Your task to perform on an android device: Open Chrome and go to settings Image 0: 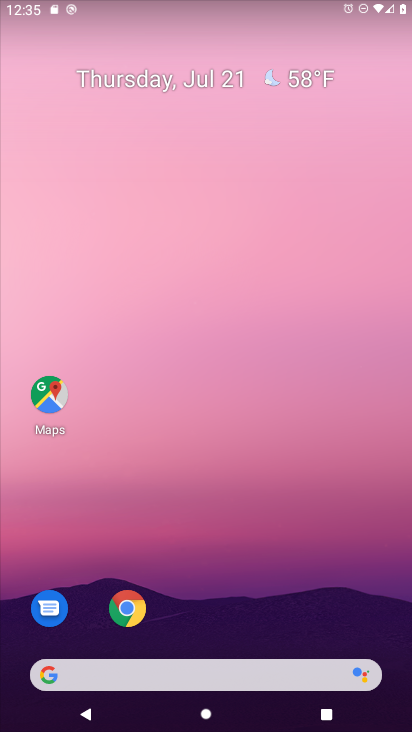
Step 0: press home button
Your task to perform on an android device: Open Chrome and go to settings Image 1: 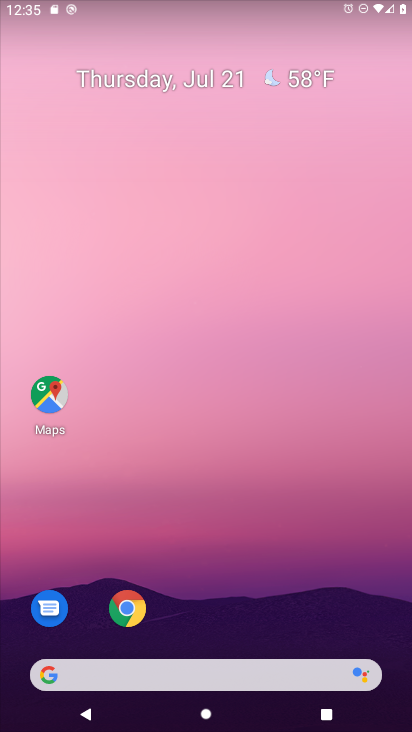
Step 1: drag from (221, 585) to (276, 0)
Your task to perform on an android device: Open Chrome and go to settings Image 2: 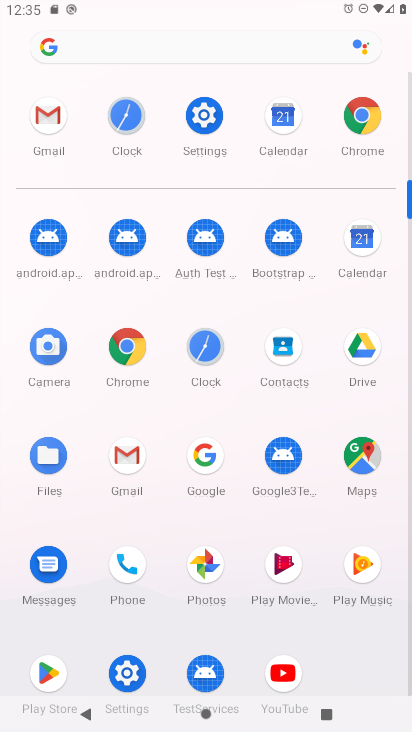
Step 2: click (361, 117)
Your task to perform on an android device: Open Chrome and go to settings Image 3: 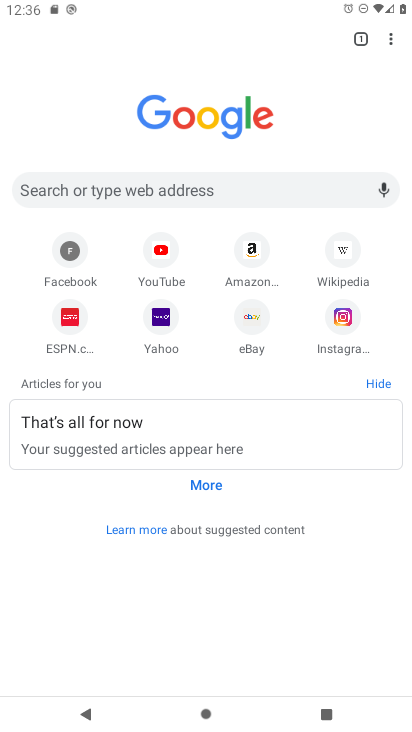
Step 3: task complete